Your task to perform on an android device: change your default location settings in chrome Image 0: 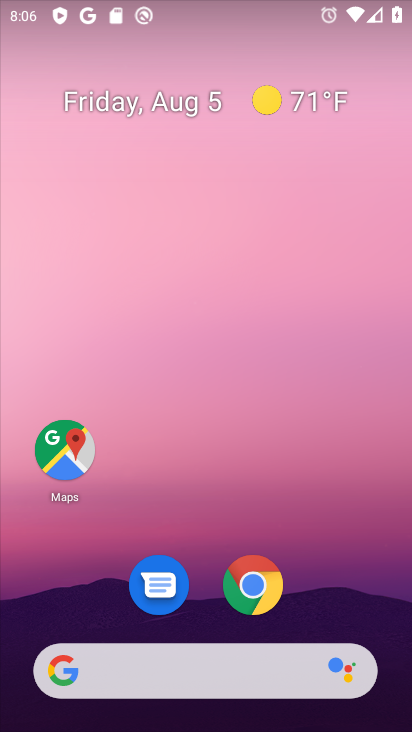
Step 0: click (257, 572)
Your task to perform on an android device: change your default location settings in chrome Image 1: 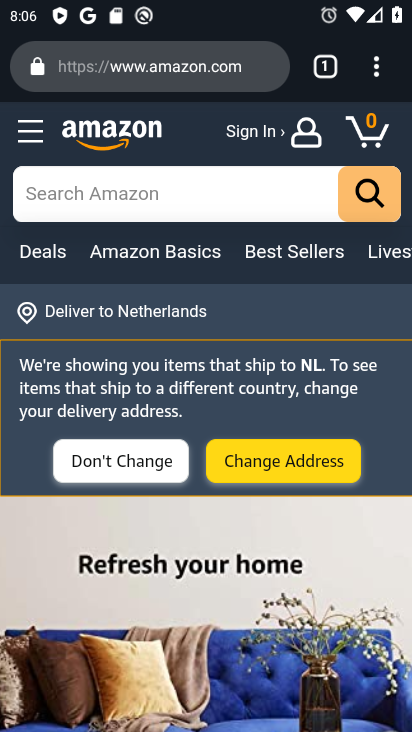
Step 1: press back button
Your task to perform on an android device: change your default location settings in chrome Image 2: 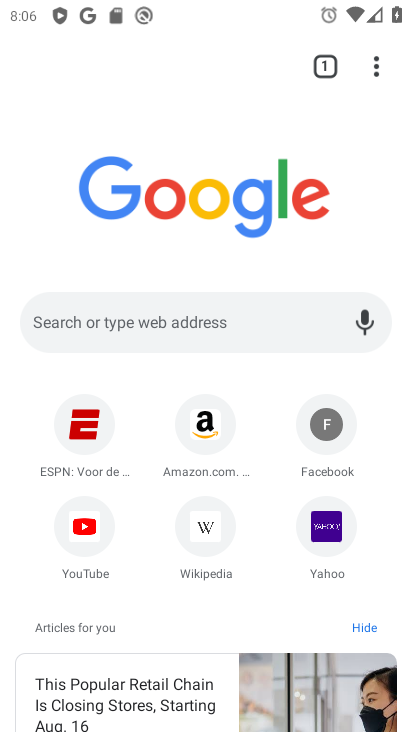
Step 2: click (372, 70)
Your task to perform on an android device: change your default location settings in chrome Image 3: 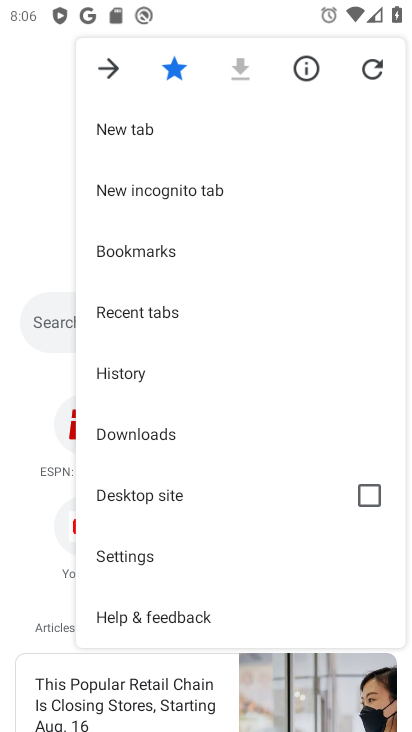
Step 3: click (155, 558)
Your task to perform on an android device: change your default location settings in chrome Image 4: 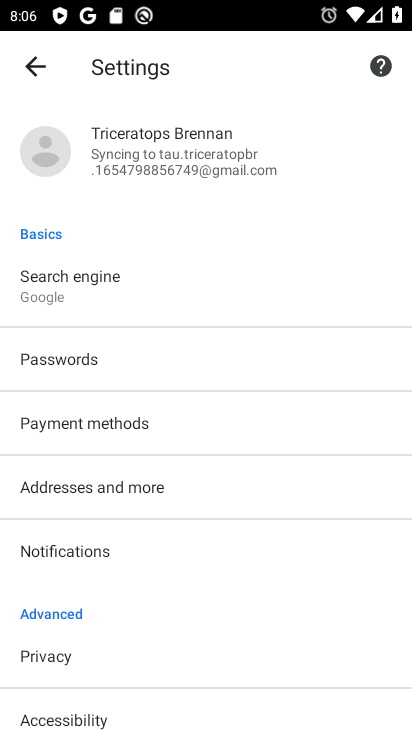
Step 4: drag from (155, 557) to (237, 138)
Your task to perform on an android device: change your default location settings in chrome Image 5: 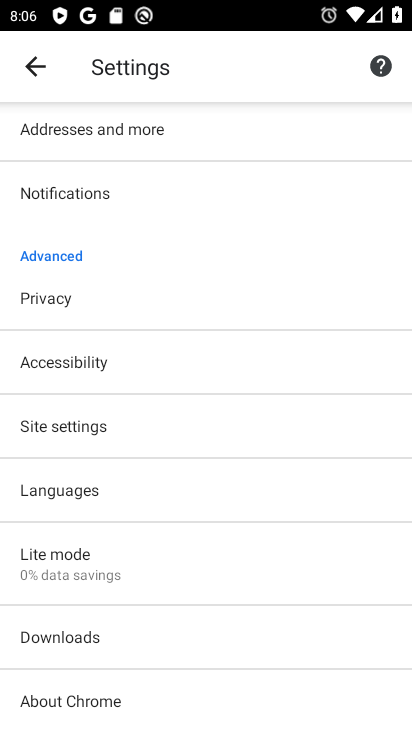
Step 5: click (103, 421)
Your task to perform on an android device: change your default location settings in chrome Image 6: 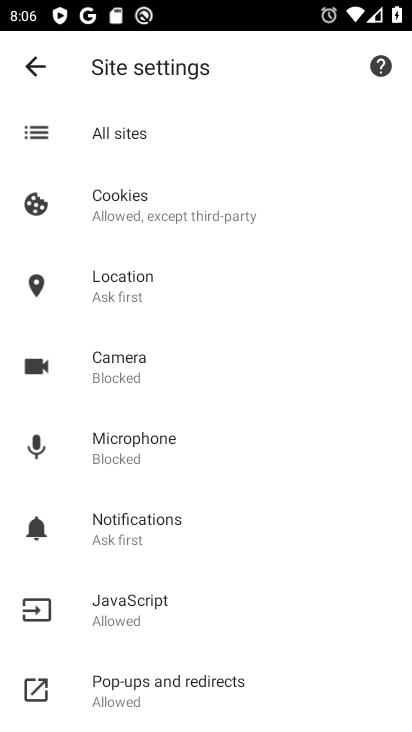
Step 6: click (133, 281)
Your task to perform on an android device: change your default location settings in chrome Image 7: 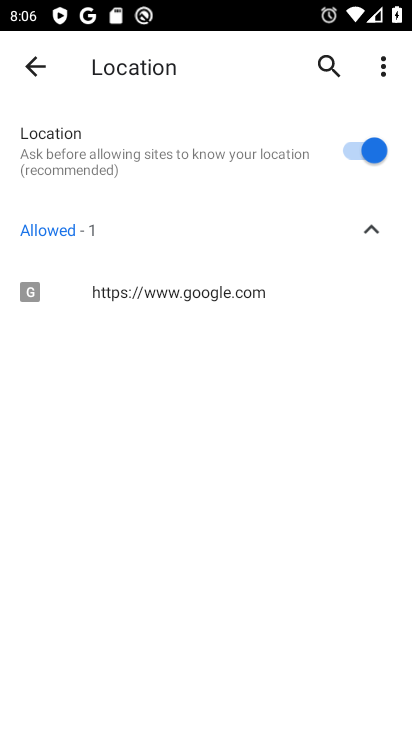
Step 7: click (350, 143)
Your task to perform on an android device: change your default location settings in chrome Image 8: 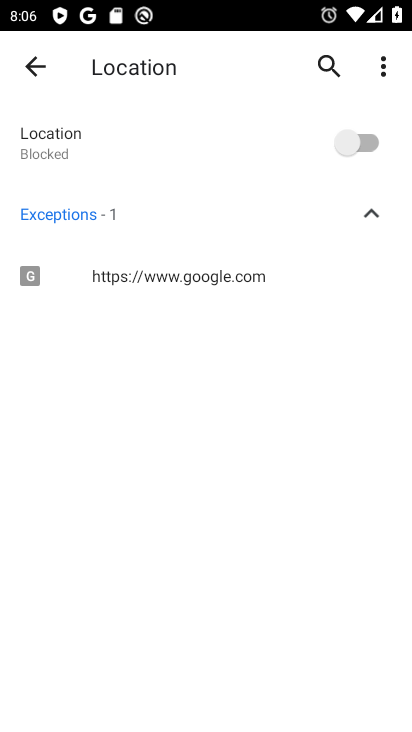
Step 8: task complete